Your task to perform on an android device: turn on translation in the chrome app Image 0: 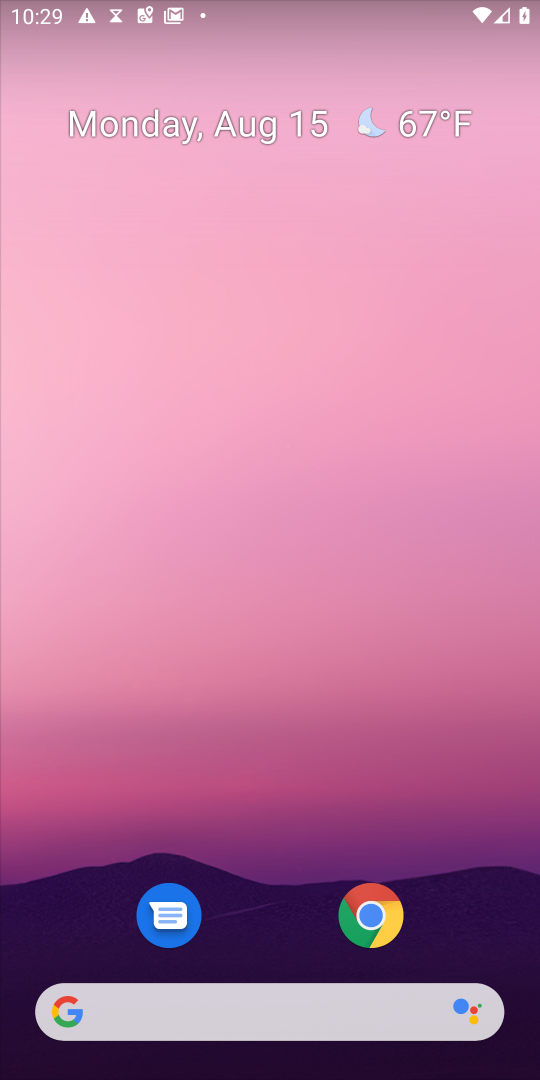
Step 0: press home button
Your task to perform on an android device: turn on translation in the chrome app Image 1: 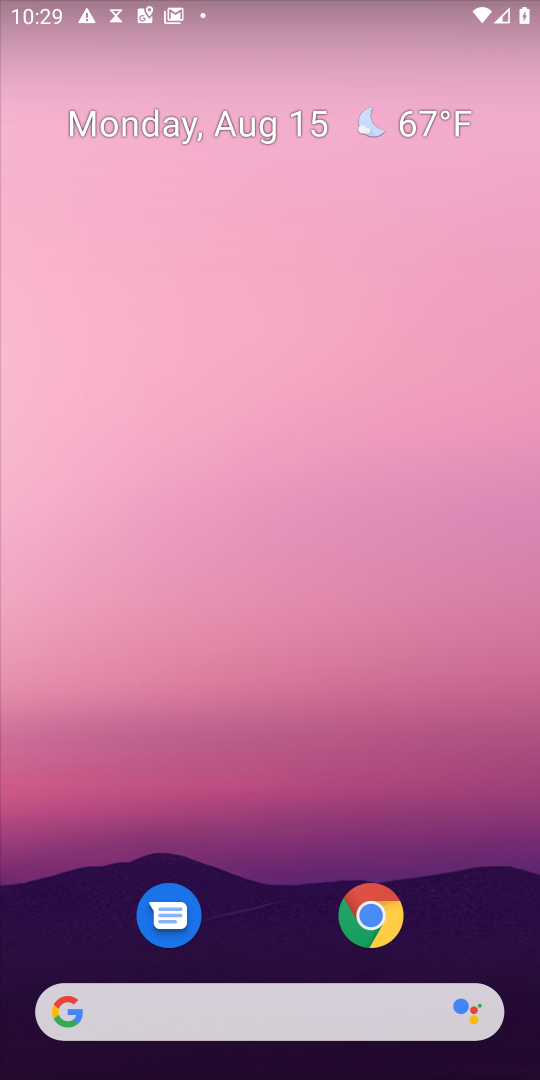
Step 1: click (362, 910)
Your task to perform on an android device: turn on translation in the chrome app Image 2: 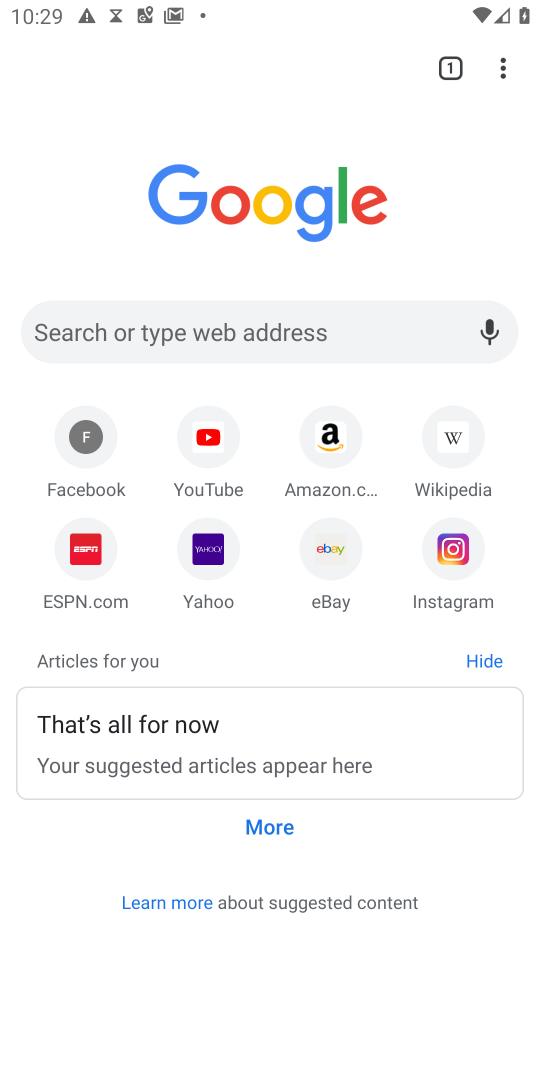
Step 2: drag from (502, 60) to (281, 568)
Your task to perform on an android device: turn on translation in the chrome app Image 3: 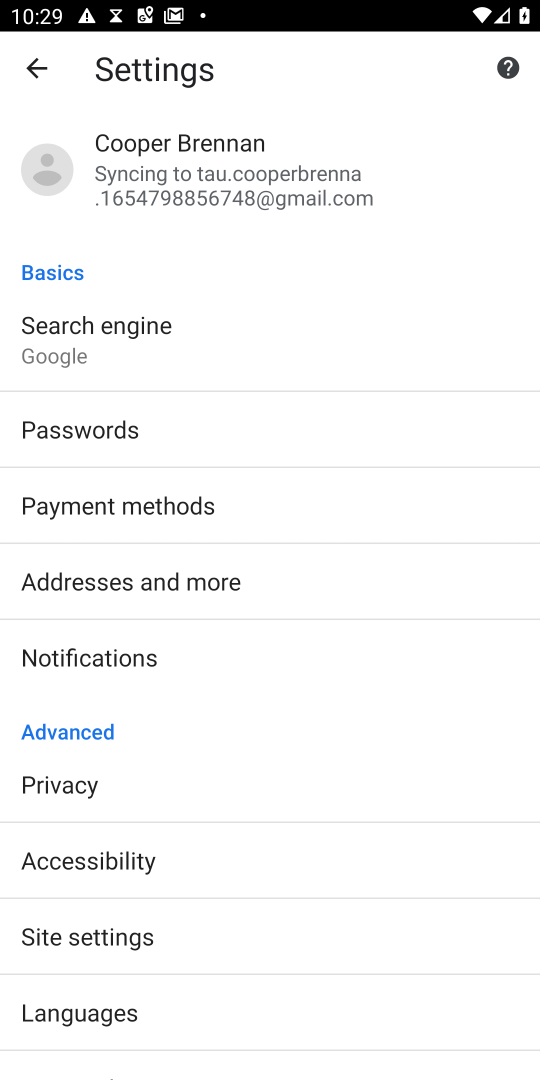
Step 3: drag from (329, 745) to (348, 420)
Your task to perform on an android device: turn on translation in the chrome app Image 4: 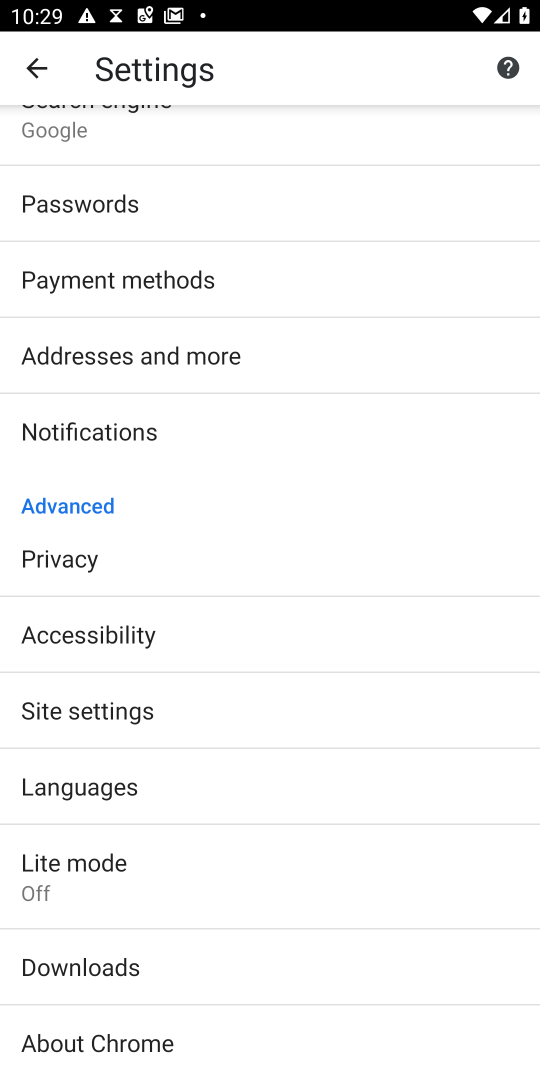
Step 4: drag from (238, 518) to (261, 374)
Your task to perform on an android device: turn on translation in the chrome app Image 5: 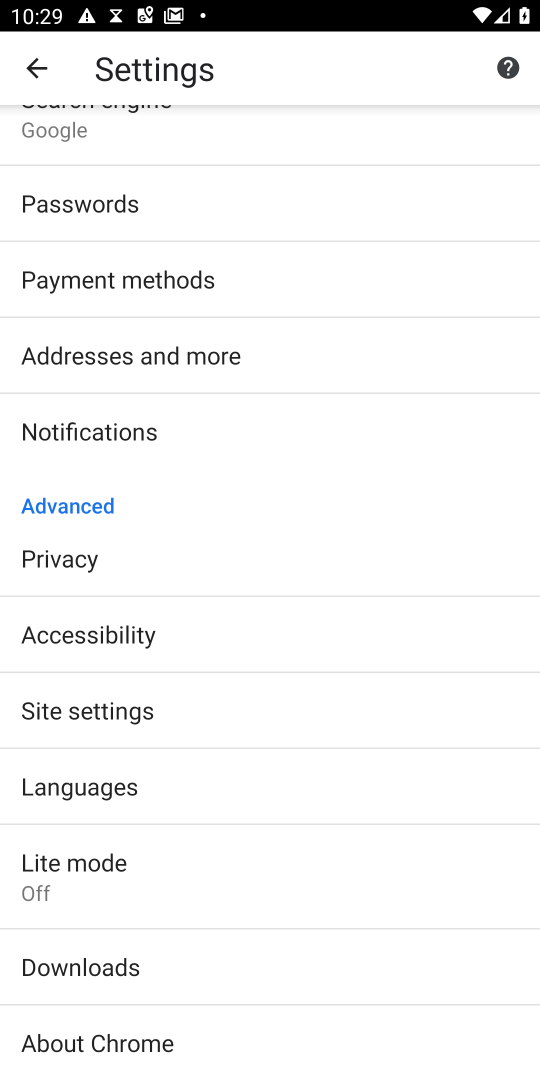
Step 5: click (172, 786)
Your task to perform on an android device: turn on translation in the chrome app Image 6: 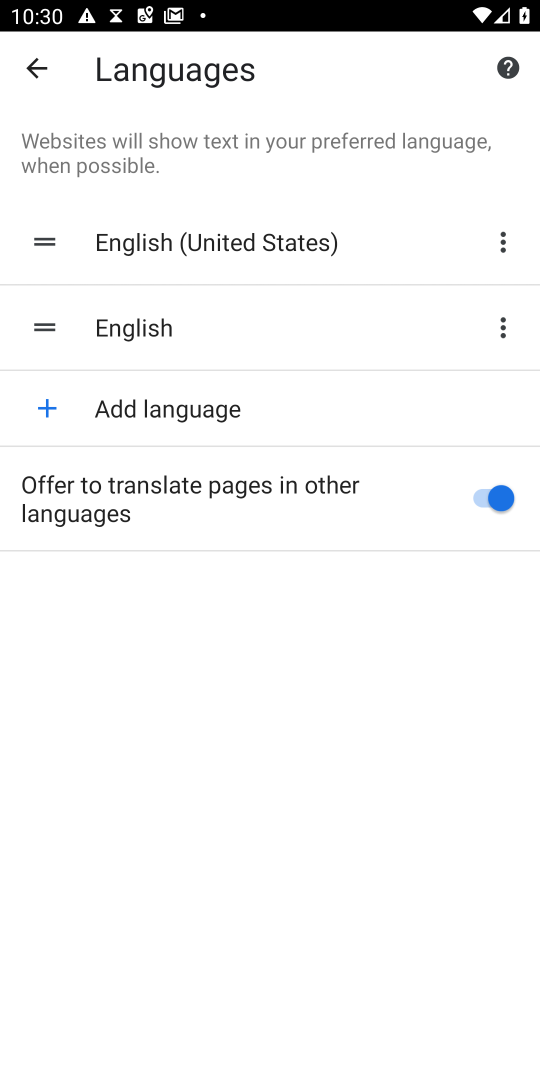
Step 6: task complete